Your task to perform on an android device: Open Google Maps and go to "Timeline" Image 0: 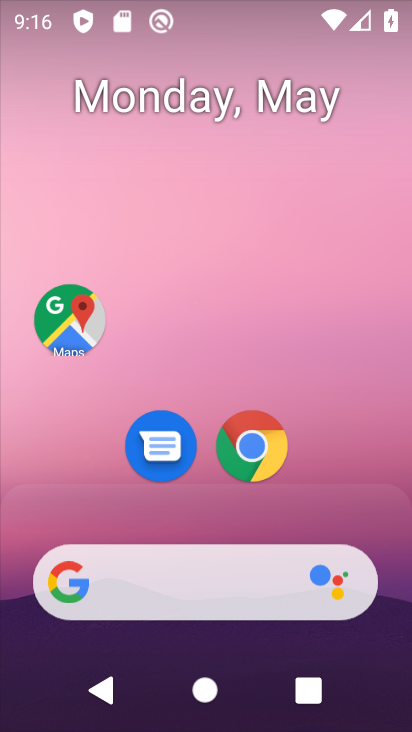
Step 0: click (96, 320)
Your task to perform on an android device: Open Google Maps and go to "Timeline" Image 1: 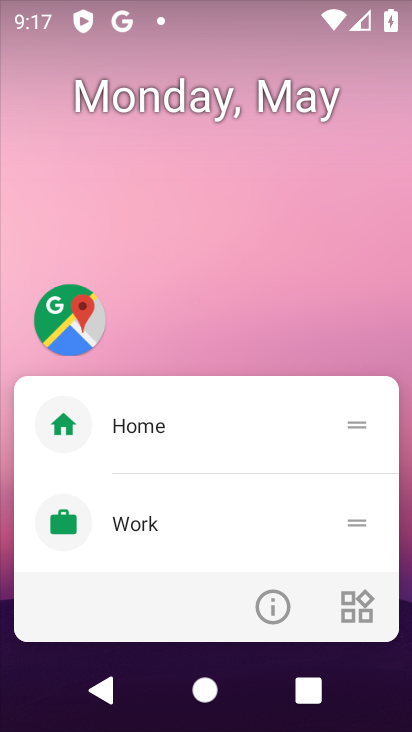
Step 1: click (50, 325)
Your task to perform on an android device: Open Google Maps and go to "Timeline" Image 2: 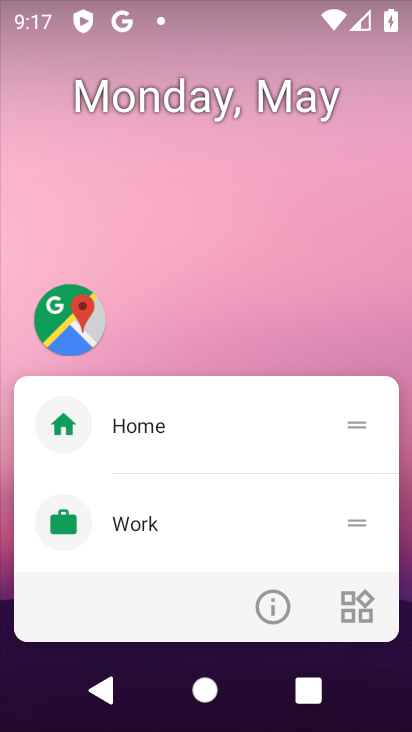
Step 2: click (57, 311)
Your task to perform on an android device: Open Google Maps and go to "Timeline" Image 3: 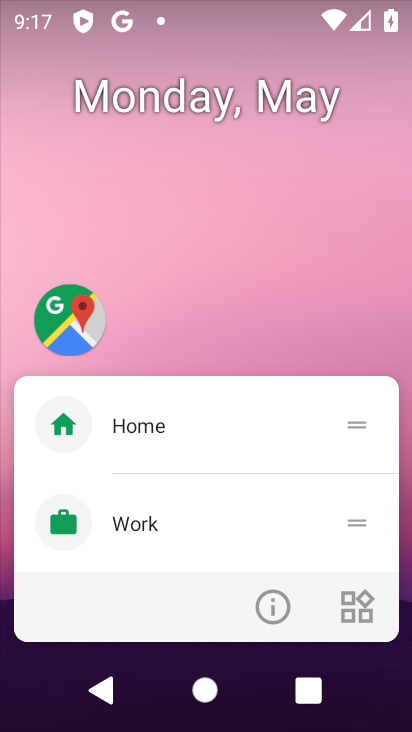
Step 3: click (62, 325)
Your task to perform on an android device: Open Google Maps and go to "Timeline" Image 4: 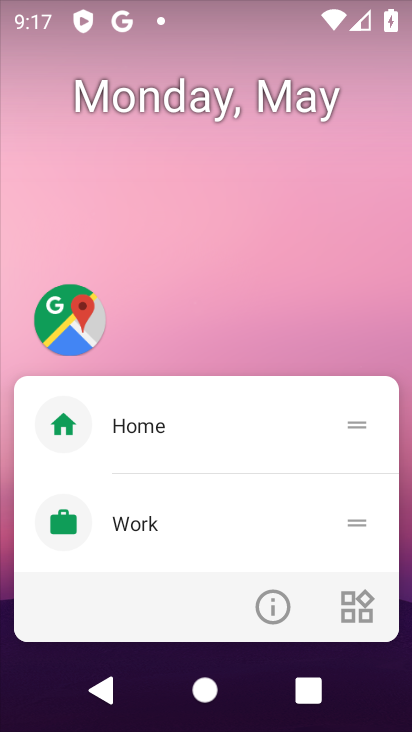
Step 4: click (76, 316)
Your task to perform on an android device: Open Google Maps and go to "Timeline" Image 5: 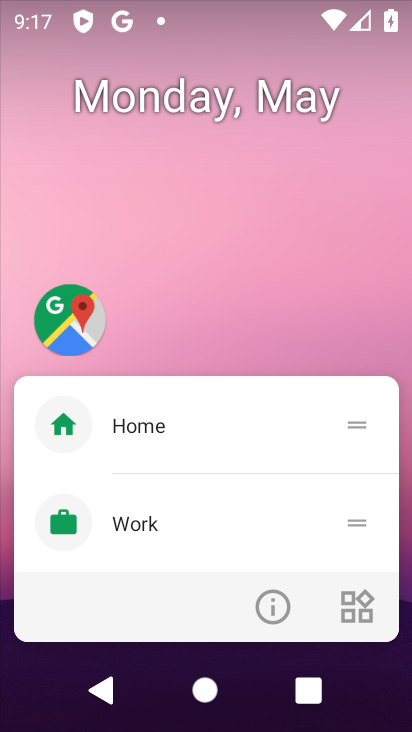
Step 5: click (49, 316)
Your task to perform on an android device: Open Google Maps and go to "Timeline" Image 6: 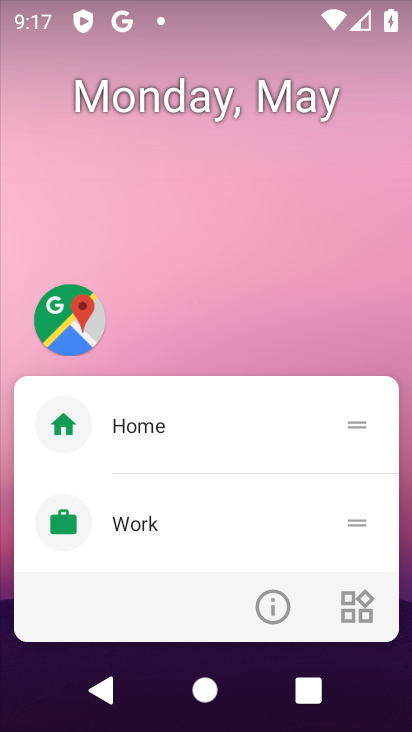
Step 6: click (57, 317)
Your task to perform on an android device: Open Google Maps and go to "Timeline" Image 7: 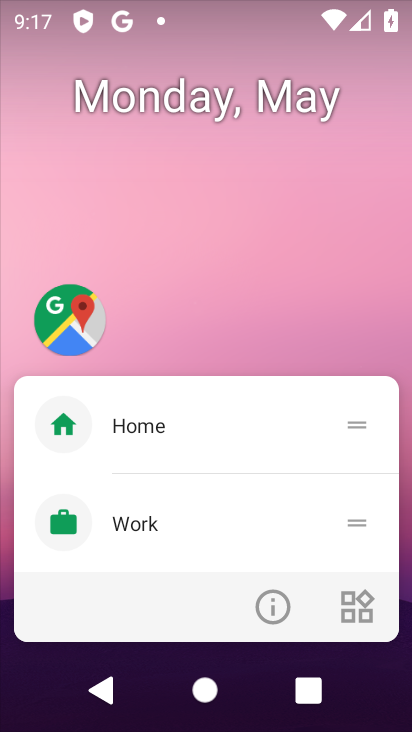
Step 7: click (81, 339)
Your task to perform on an android device: Open Google Maps and go to "Timeline" Image 8: 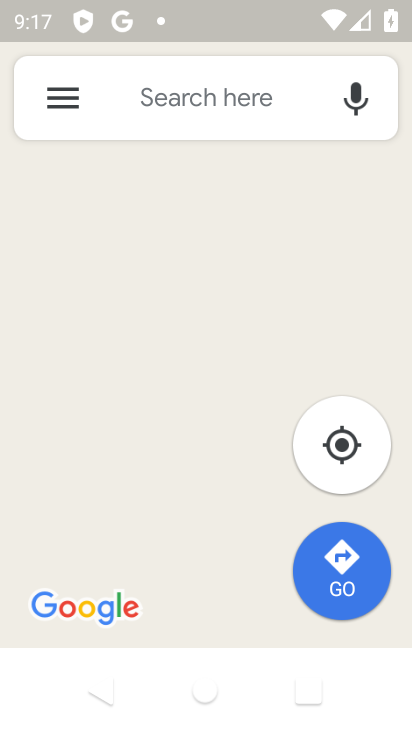
Step 8: click (74, 336)
Your task to perform on an android device: Open Google Maps and go to "Timeline" Image 9: 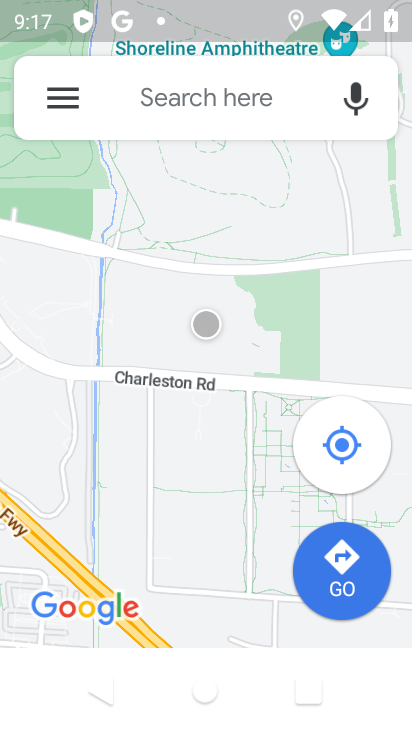
Step 9: click (67, 96)
Your task to perform on an android device: Open Google Maps and go to "Timeline" Image 10: 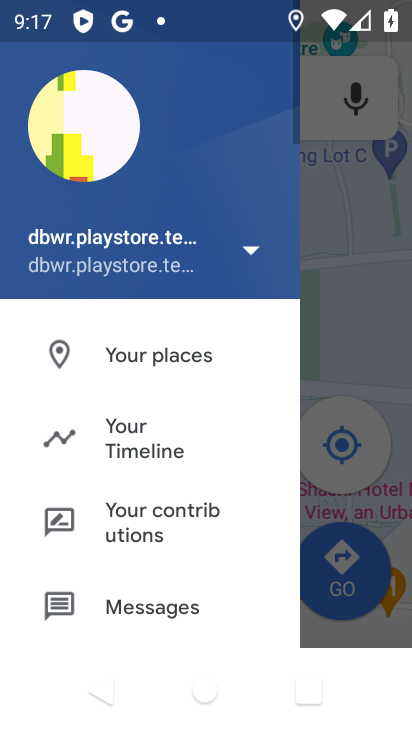
Step 10: click (168, 439)
Your task to perform on an android device: Open Google Maps and go to "Timeline" Image 11: 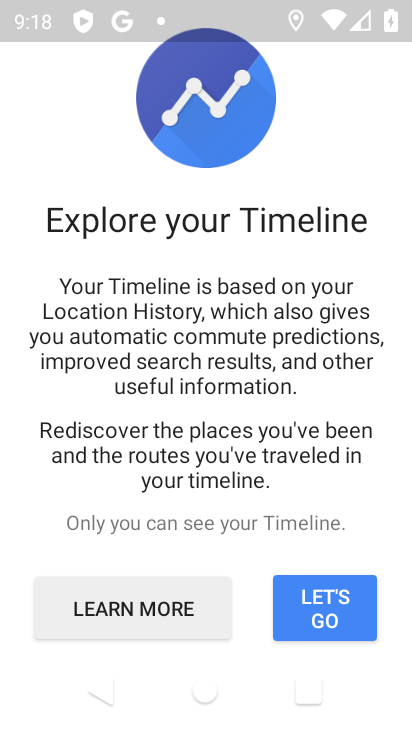
Step 11: click (318, 601)
Your task to perform on an android device: Open Google Maps and go to "Timeline" Image 12: 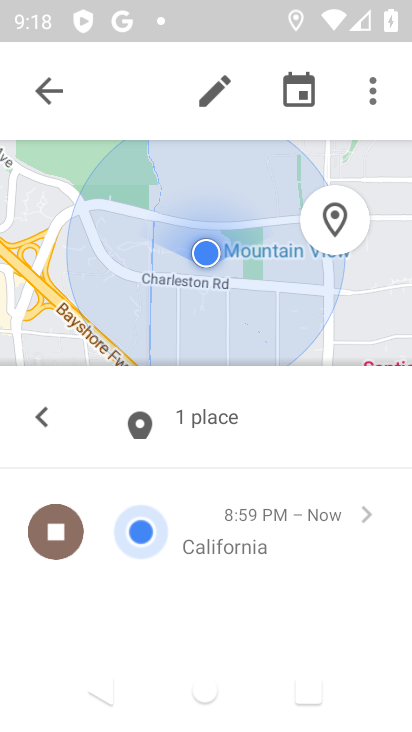
Step 12: task complete